Your task to perform on an android device: Go to Android settings Image 0: 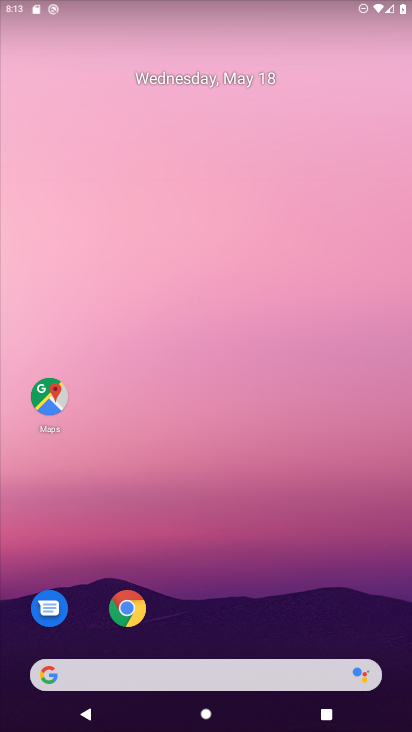
Step 0: drag from (368, 654) to (335, 19)
Your task to perform on an android device: Go to Android settings Image 1: 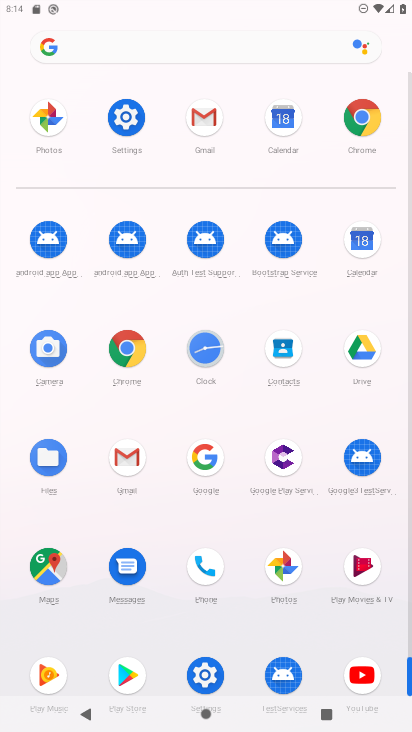
Step 1: click (209, 670)
Your task to perform on an android device: Go to Android settings Image 2: 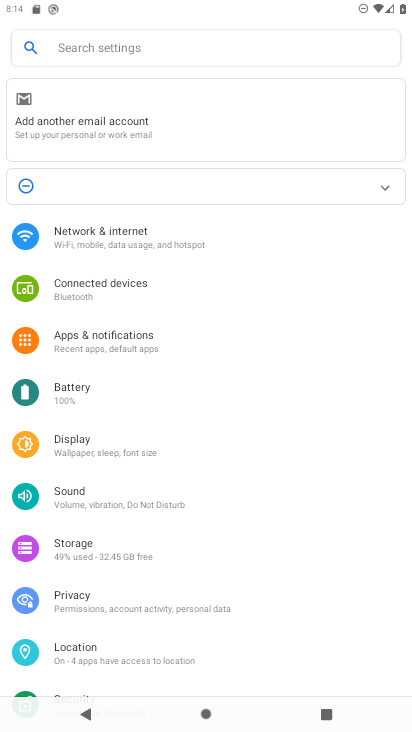
Step 2: task complete